Your task to perform on an android device: Open Yahoo.com Image 0: 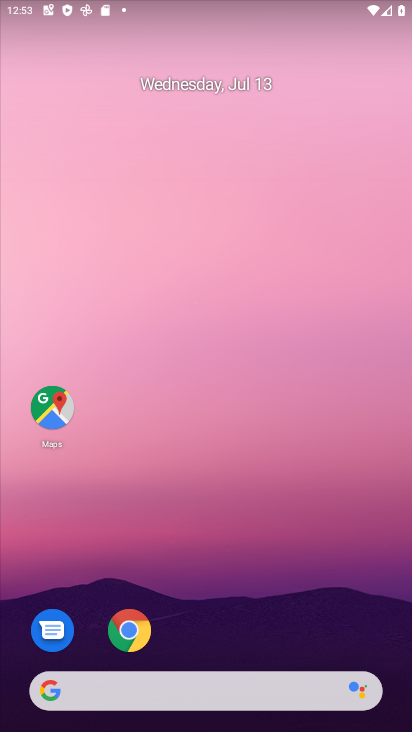
Step 0: drag from (374, 617) to (234, 58)
Your task to perform on an android device: Open Yahoo.com Image 1: 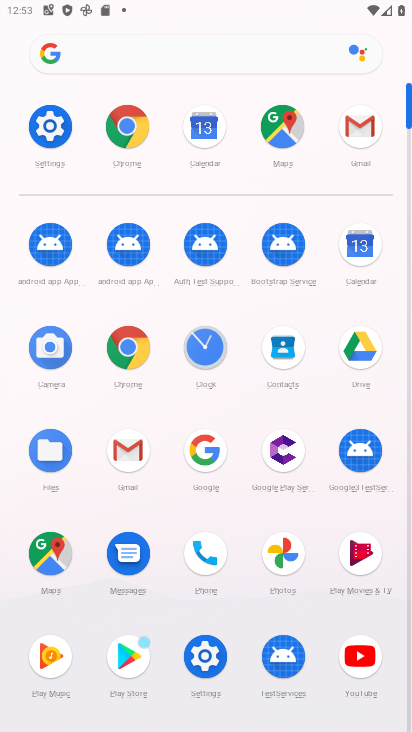
Step 1: click (194, 446)
Your task to perform on an android device: Open Yahoo.com Image 2: 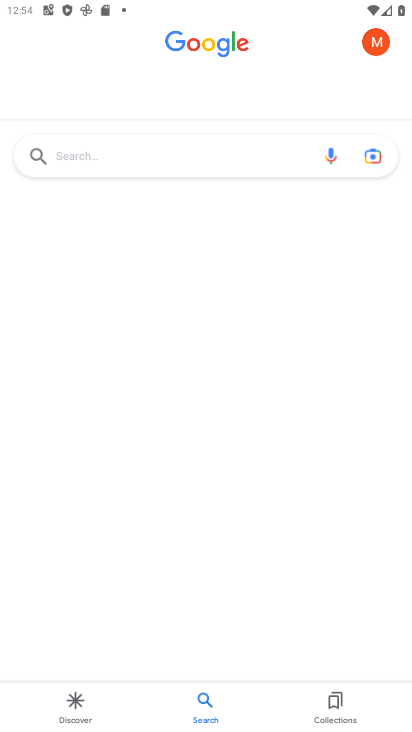
Step 2: click (140, 152)
Your task to perform on an android device: Open Yahoo.com Image 3: 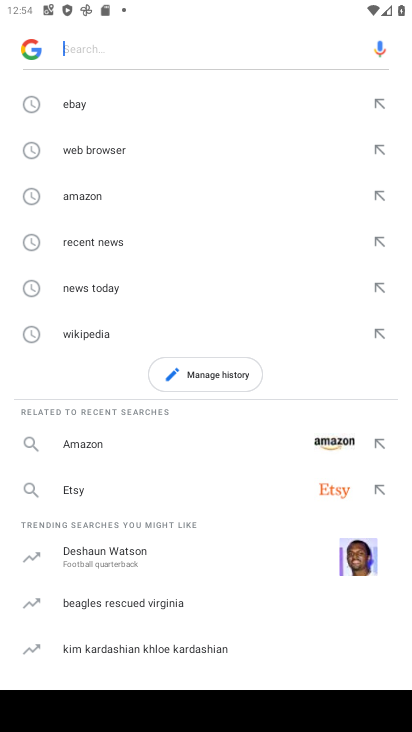
Step 3: type "Yahoo.com"
Your task to perform on an android device: Open Yahoo.com Image 4: 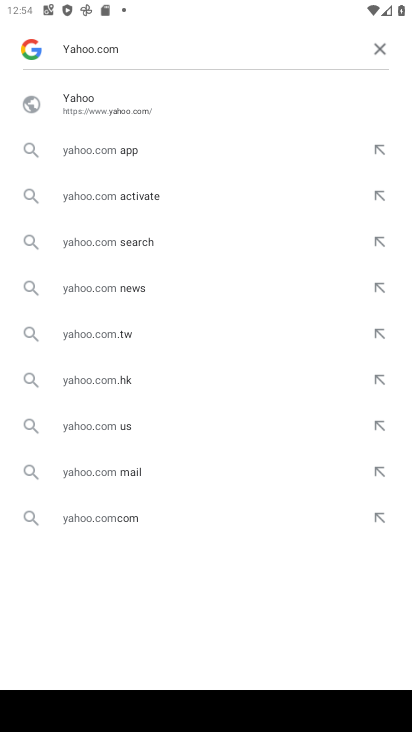
Step 4: click (102, 107)
Your task to perform on an android device: Open Yahoo.com Image 5: 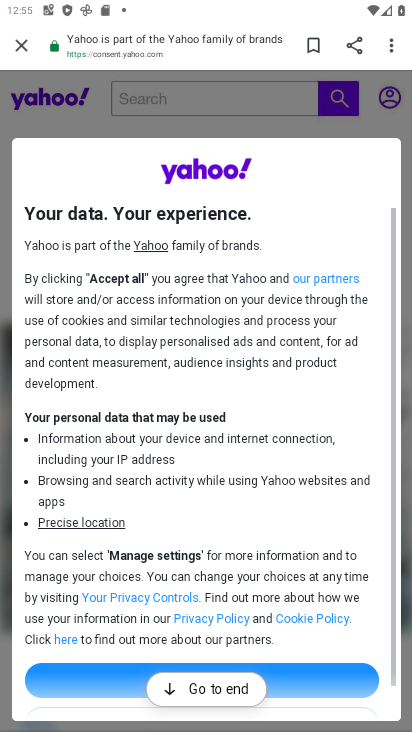
Step 5: task complete